Your task to perform on an android device: Go to eBay Image 0: 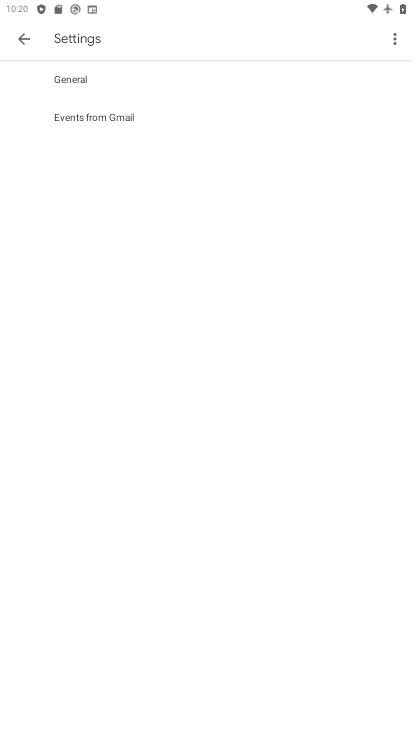
Step 0: press home button
Your task to perform on an android device: Go to eBay Image 1: 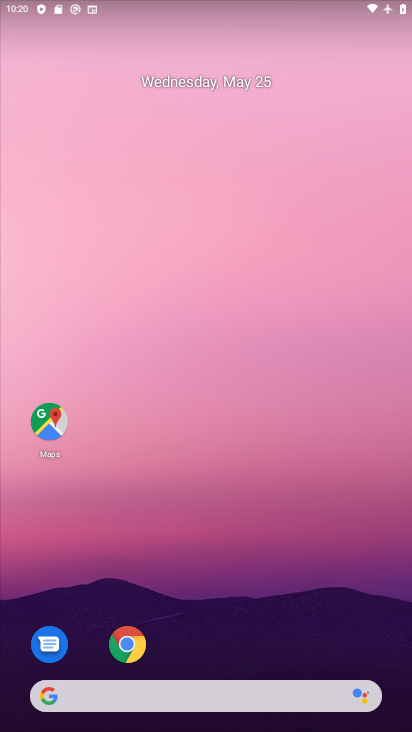
Step 1: drag from (219, 630) to (268, 38)
Your task to perform on an android device: Go to eBay Image 2: 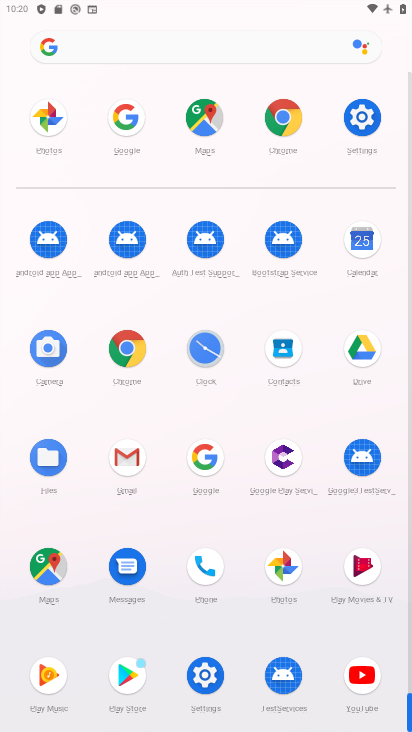
Step 2: click (120, 111)
Your task to perform on an android device: Go to eBay Image 3: 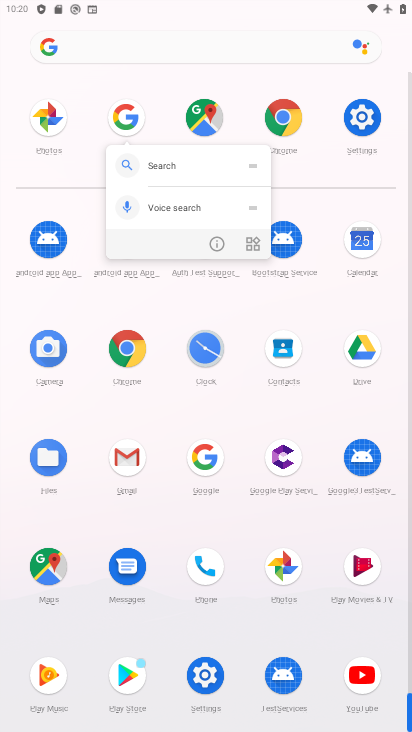
Step 3: click (128, 118)
Your task to perform on an android device: Go to eBay Image 4: 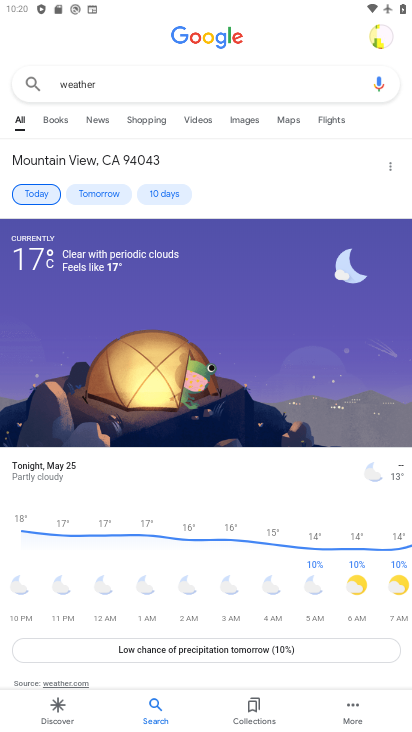
Step 4: click (151, 88)
Your task to perform on an android device: Go to eBay Image 5: 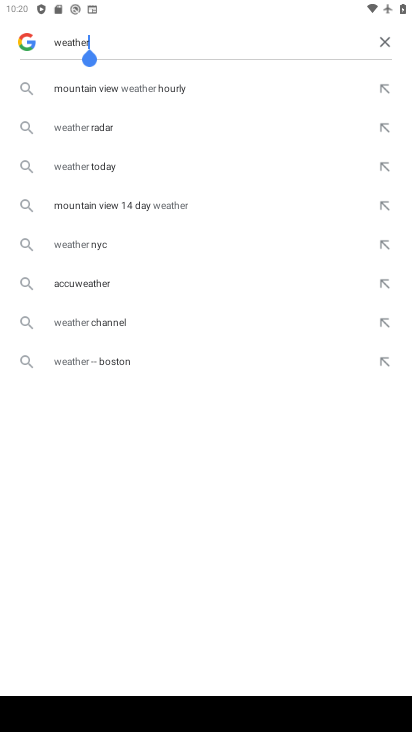
Step 5: click (376, 31)
Your task to perform on an android device: Go to eBay Image 6: 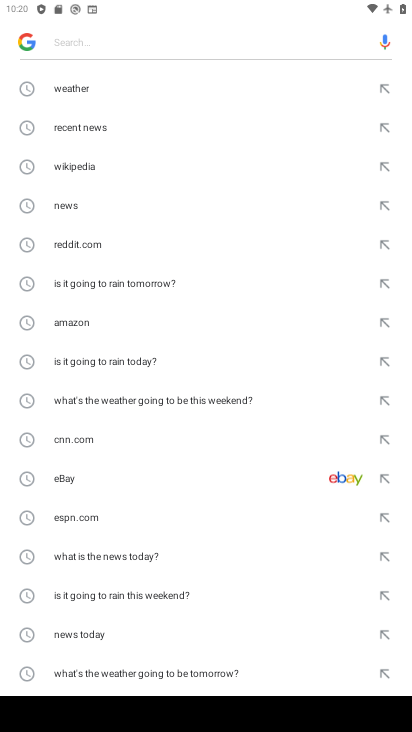
Step 6: click (84, 483)
Your task to perform on an android device: Go to eBay Image 7: 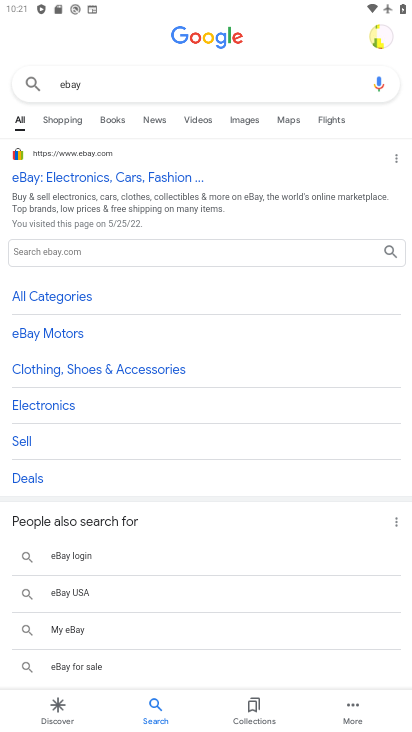
Step 7: click (136, 185)
Your task to perform on an android device: Go to eBay Image 8: 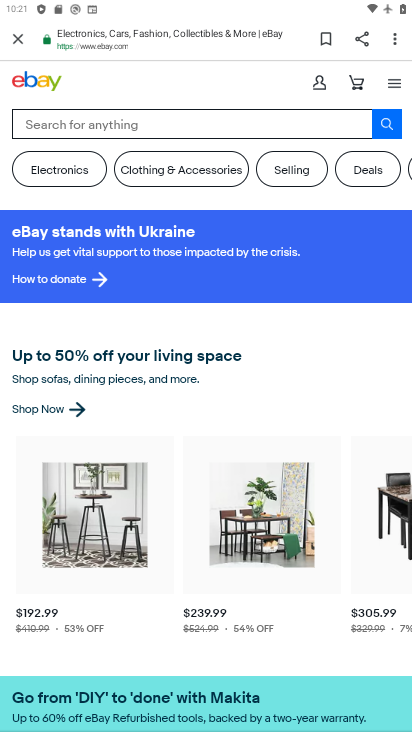
Step 8: task complete